Your task to perform on an android device: turn off javascript in the chrome app Image 0: 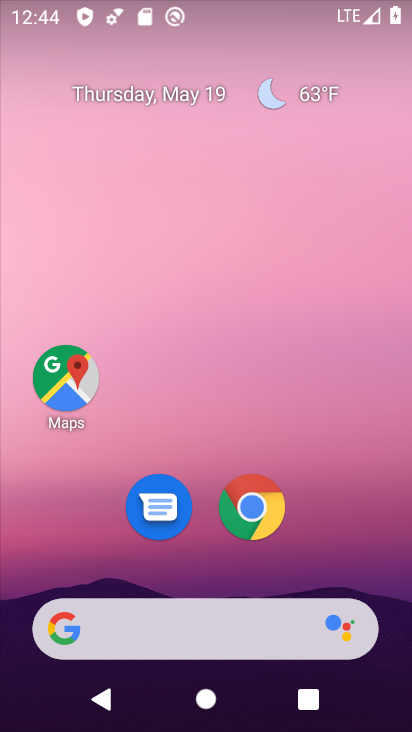
Step 0: click (252, 518)
Your task to perform on an android device: turn off javascript in the chrome app Image 1: 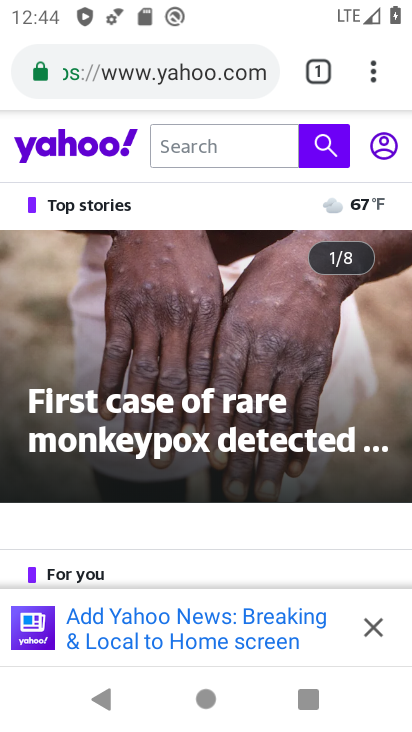
Step 1: click (369, 71)
Your task to perform on an android device: turn off javascript in the chrome app Image 2: 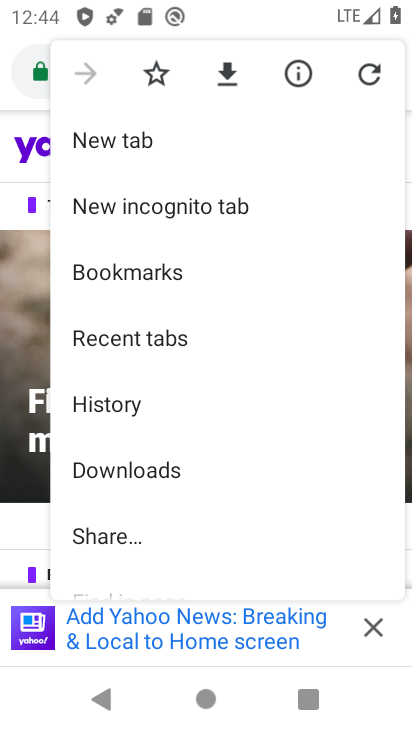
Step 2: drag from (105, 519) to (132, 170)
Your task to perform on an android device: turn off javascript in the chrome app Image 3: 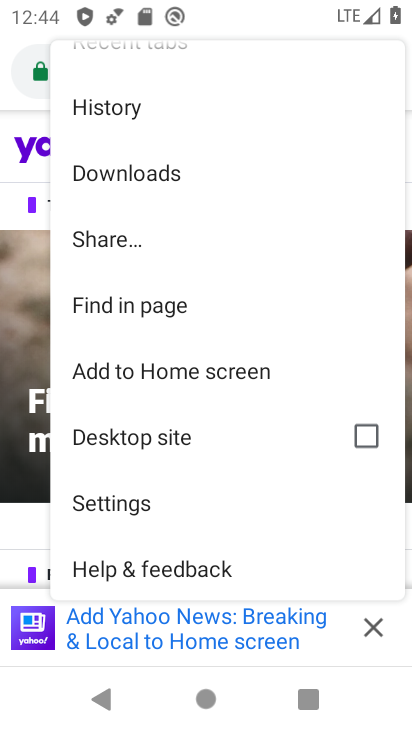
Step 3: click (116, 488)
Your task to perform on an android device: turn off javascript in the chrome app Image 4: 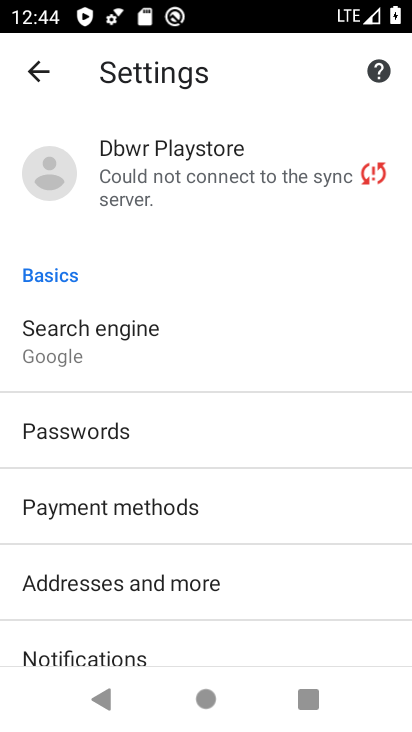
Step 4: drag from (42, 623) to (124, 253)
Your task to perform on an android device: turn off javascript in the chrome app Image 5: 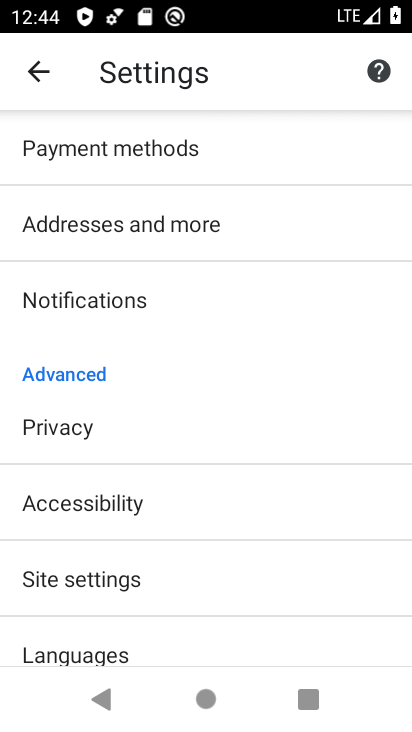
Step 5: click (100, 575)
Your task to perform on an android device: turn off javascript in the chrome app Image 6: 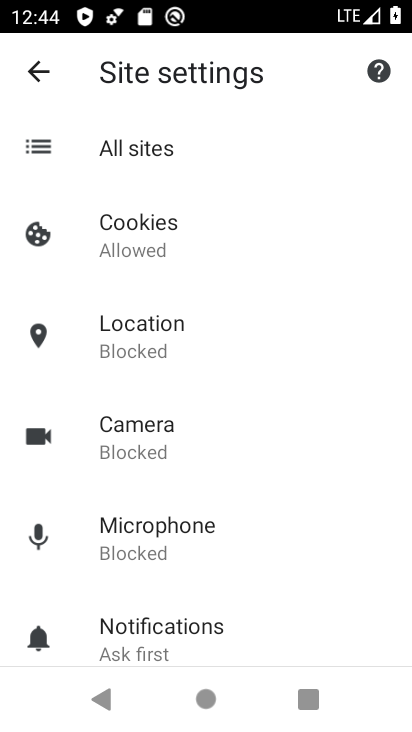
Step 6: drag from (134, 652) to (148, 326)
Your task to perform on an android device: turn off javascript in the chrome app Image 7: 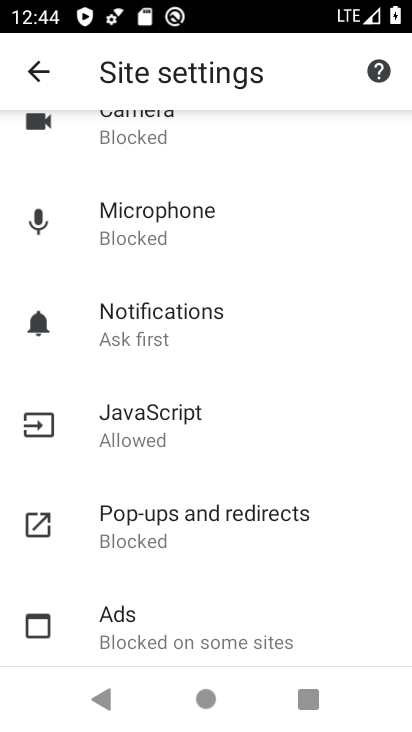
Step 7: click (132, 419)
Your task to perform on an android device: turn off javascript in the chrome app Image 8: 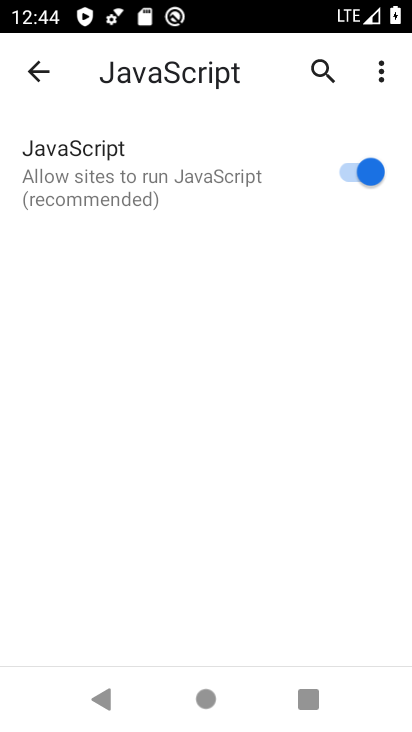
Step 8: click (339, 169)
Your task to perform on an android device: turn off javascript in the chrome app Image 9: 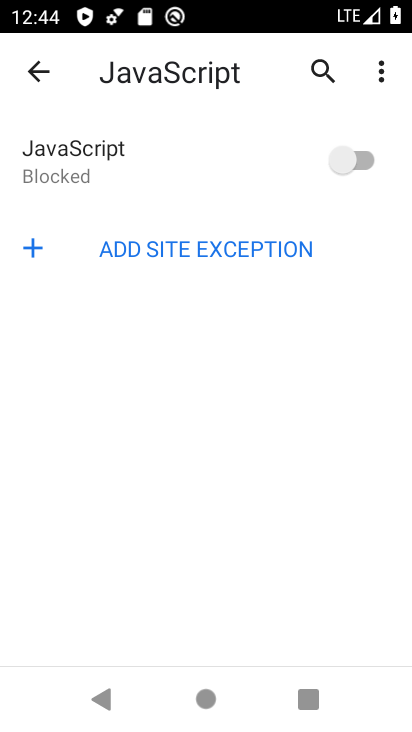
Step 9: task complete